Your task to perform on an android device: Go to Amazon Image 0: 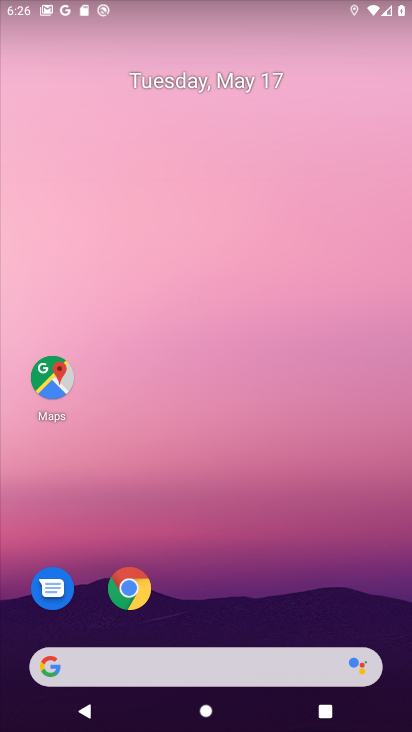
Step 0: drag from (396, 621) to (301, 34)
Your task to perform on an android device: Go to Amazon Image 1: 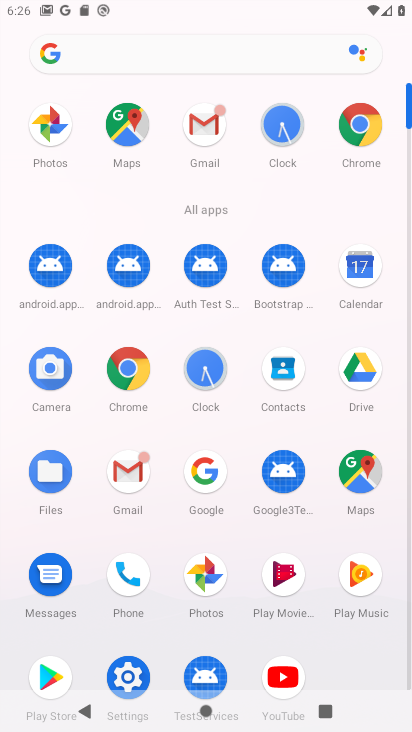
Step 1: click (129, 381)
Your task to perform on an android device: Go to Amazon Image 2: 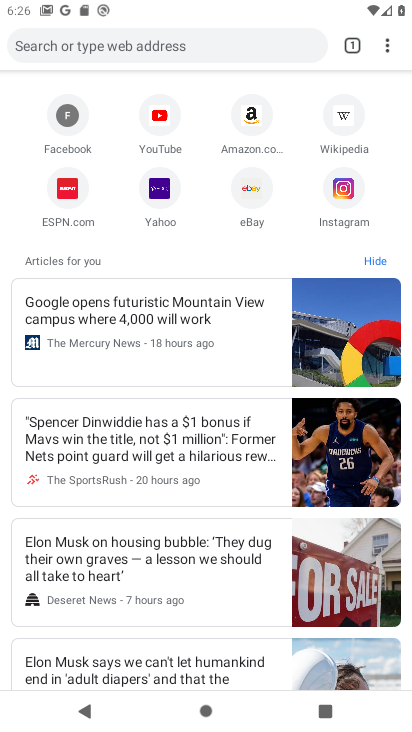
Step 2: click (252, 127)
Your task to perform on an android device: Go to Amazon Image 3: 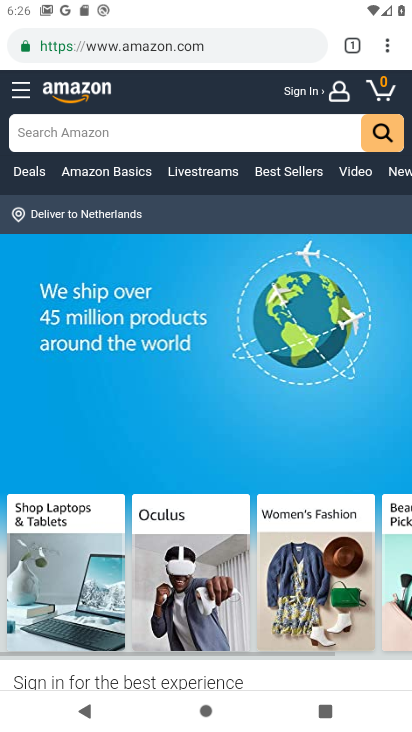
Step 3: task complete